Your task to perform on an android device: Go to Reddit.com Image 0: 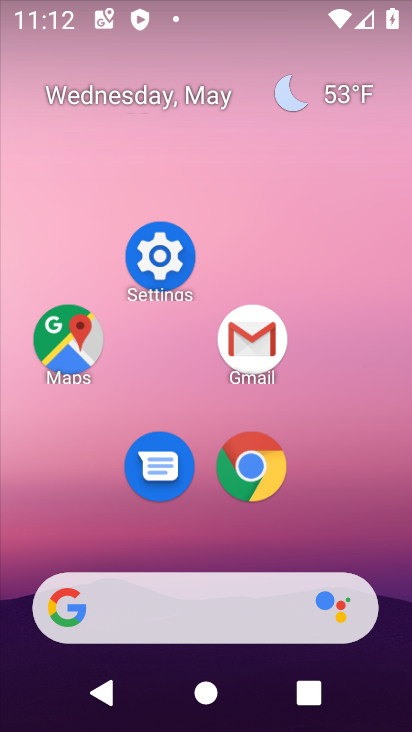
Step 0: drag from (208, 530) to (209, 304)
Your task to perform on an android device: Go to Reddit.com Image 1: 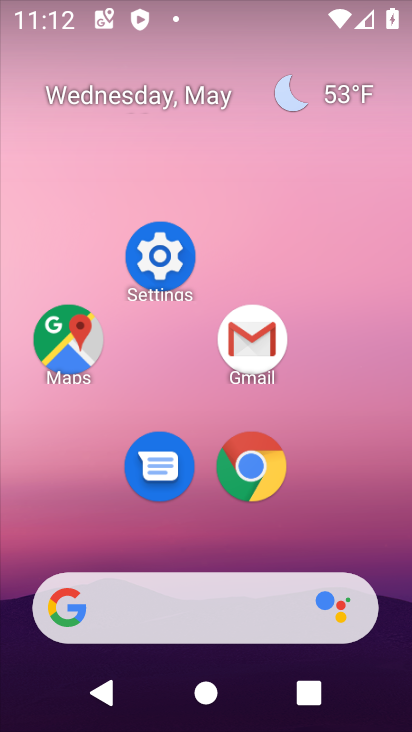
Step 1: drag from (211, 551) to (231, 0)
Your task to perform on an android device: Go to Reddit.com Image 2: 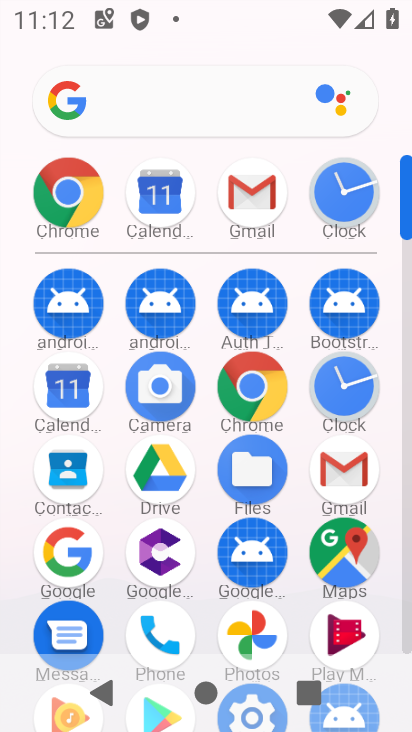
Step 2: click (179, 98)
Your task to perform on an android device: Go to Reddit.com Image 3: 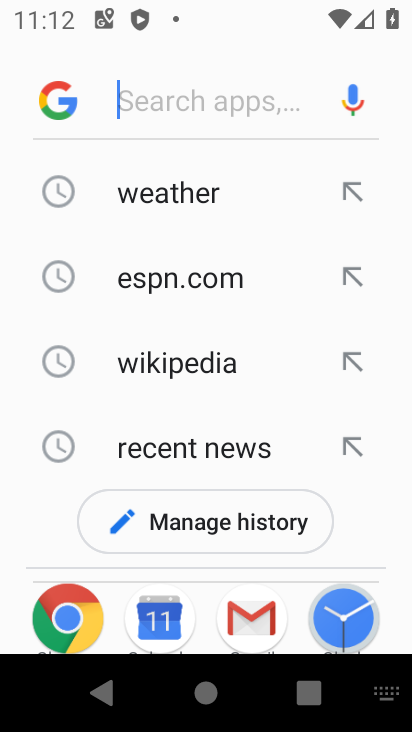
Step 3: drag from (210, 441) to (227, 188)
Your task to perform on an android device: Go to Reddit.com Image 4: 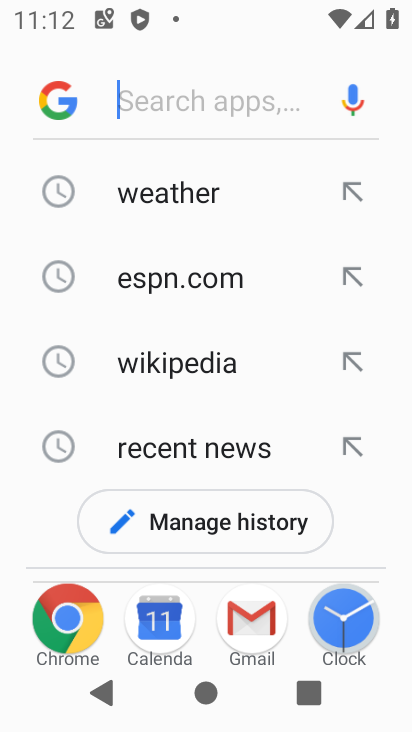
Step 4: click (183, 105)
Your task to perform on an android device: Go to Reddit.com Image 5: 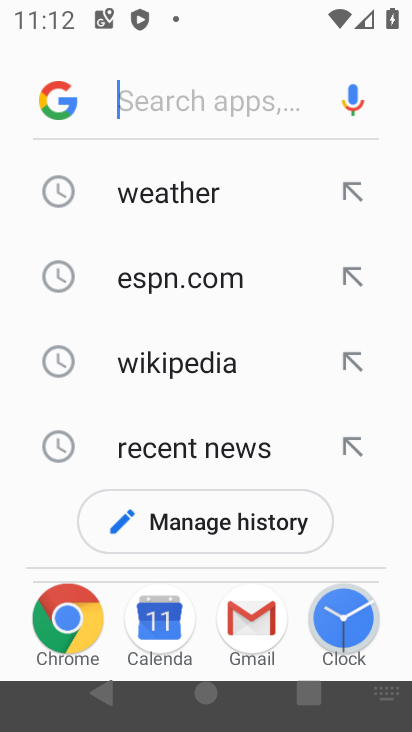
Step 5: click (139, 90)
Your task to perform on an android device: Go to Reddit.com Image 6: 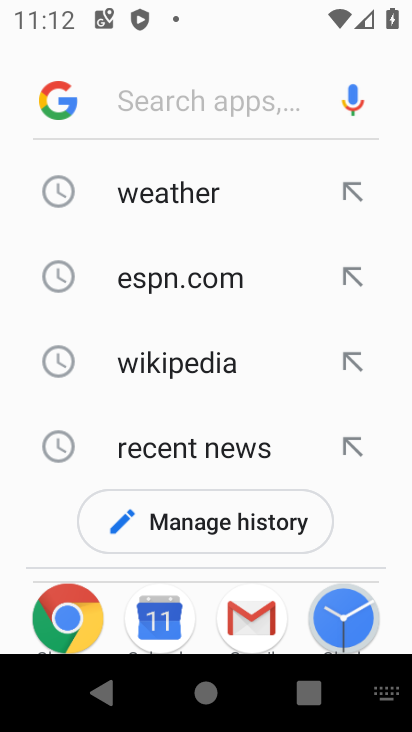
Step 6: type "reddit.com"
Your task to perform on an android device: Go to Reddit.com Image 7: 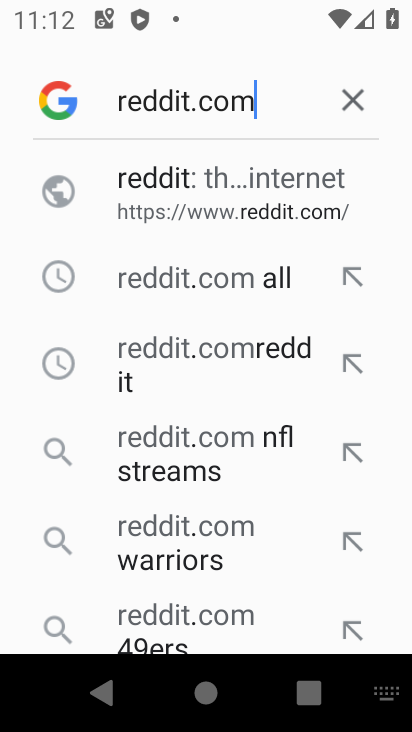
Step 7: click (191, 215)
Your task to perform on an android device: Go to Reddit.com Image 8: 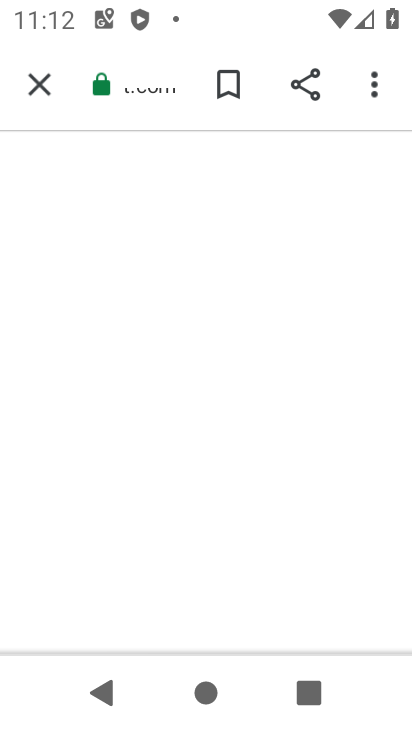
Step 8: task complete